Your task to perform on an android device: change keyboard looks Image 0: 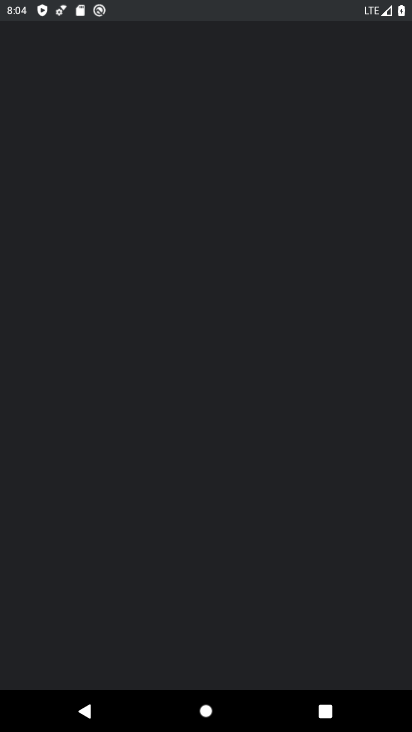
Step 0: drag from (221, 622) to (255, 56)
Your task to perform on an android device: change keyboard looks Image 1: 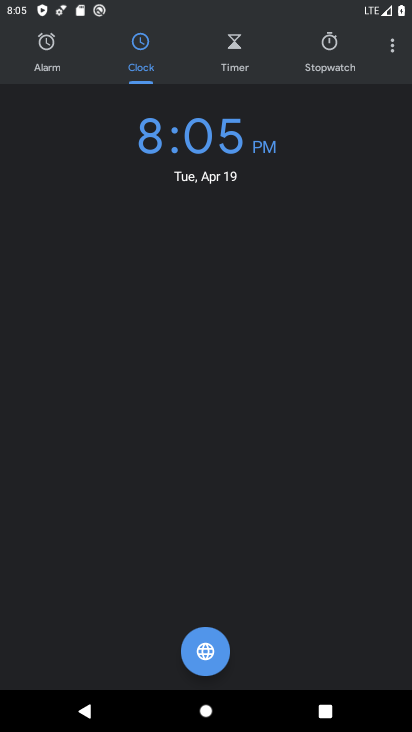
Step 1: press home button
Your task to perform on an android device: change keyboard looks Image 2: 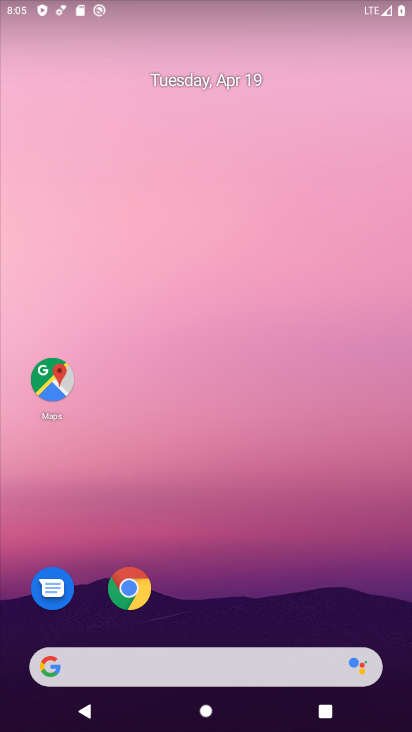
Step 2: drag from (198, 608) to (255, 128)
Your task to perform on an android device: change keyboard looks Image 3: 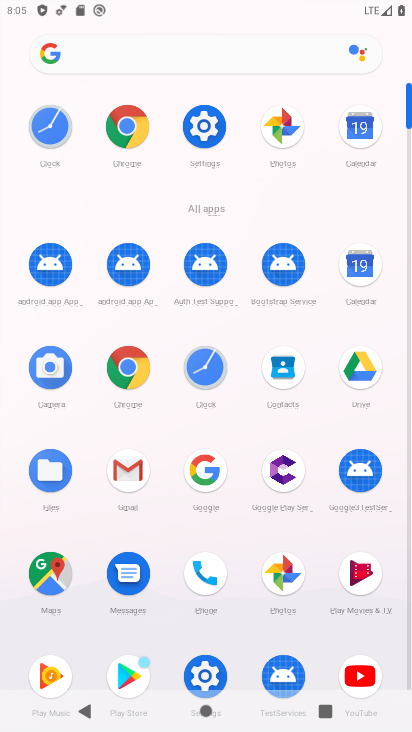
Step 3: click (200, 121)
Your task to perform on an android device: change keyboard looks Image 4: 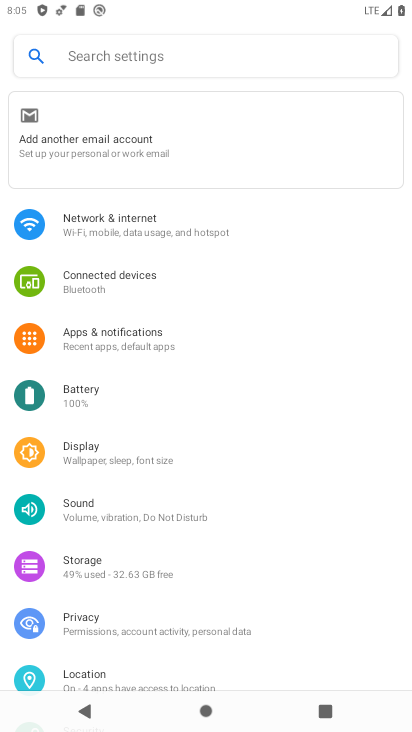
Step 4: drag from (149, 643) to (215, 139)
Your task to perform on an android device: change keyboard looks Image 5: 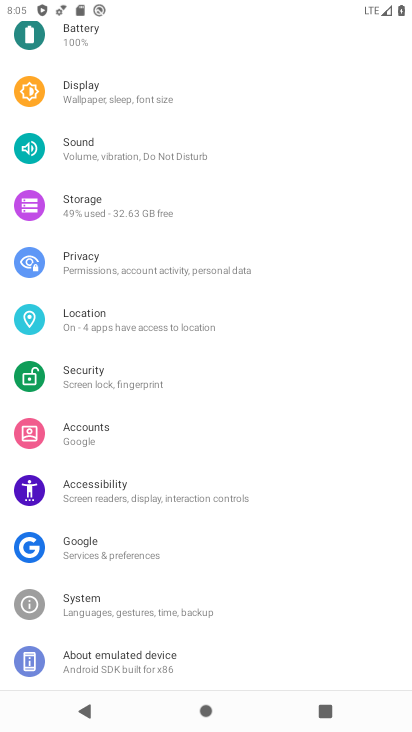
Step 5: click (117, 607)
Your task to perform on an android device: change keyboard looks Image 6: 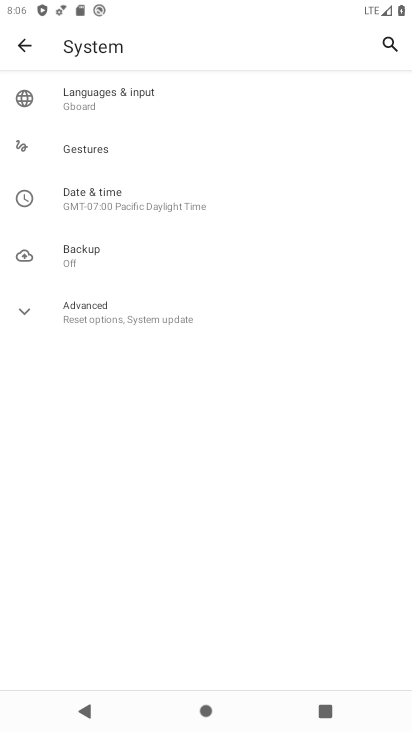
Step 6: click (96, 100)
Your task to perform on an android device: change keyboard looks Image 7: 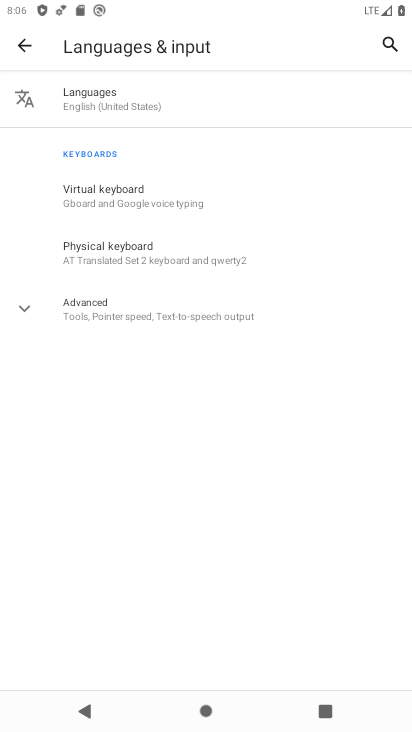
Step 7: click (102, 198)
Your task to perform on an android device: change keyboard looks Image 8: 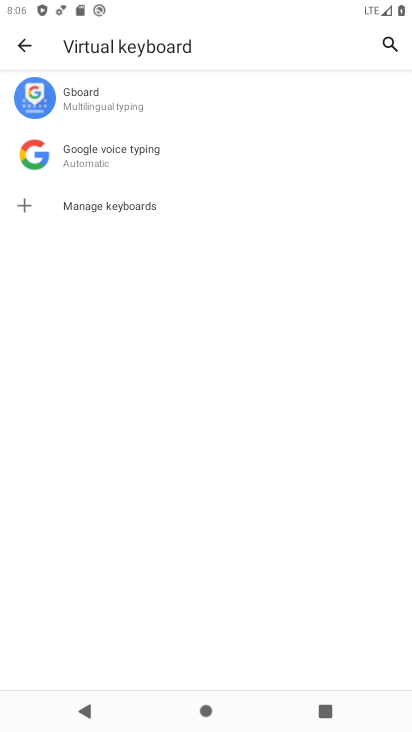
Step 8: click (108, 93)
Your task to perform on an android device: change keyboard looks Image 9: 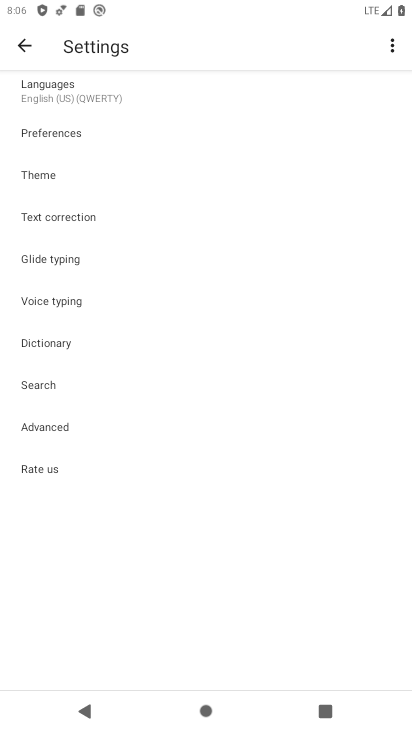
Step 9: click (74, 175)
Your task to perform on an android device: change keyboard looks Image 10: 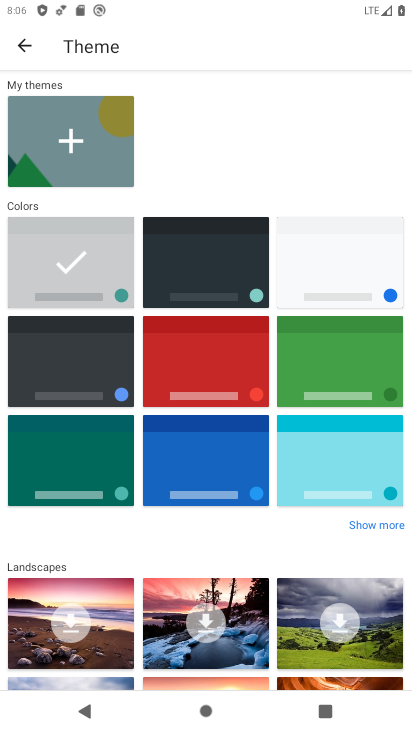
Step 10: click (369, 370)
Your task to perform on an android device: change keyboard looks Image 11: 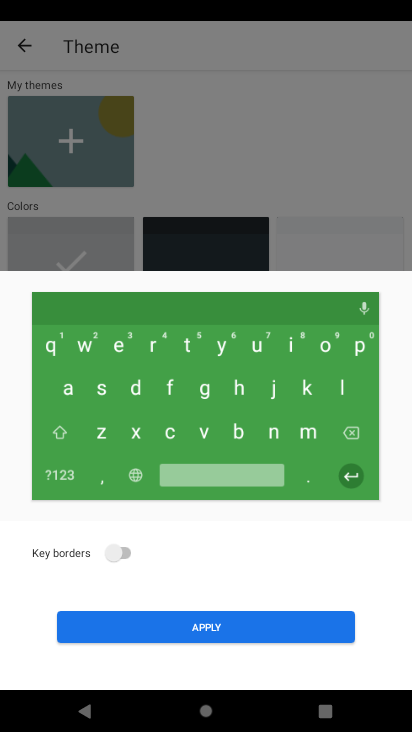
Step 11: click (198, 625)
Your task to perform on an android device: change keyboard looks Image 12: 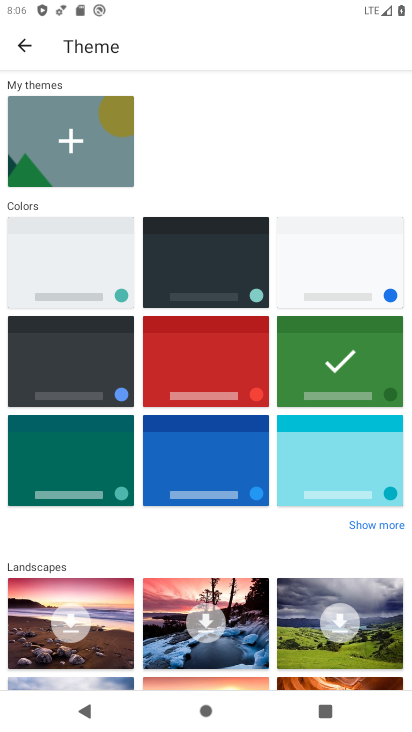
Step 12: task complete